Your task to perform on an android device: turn off picture-in-picture Image 0: 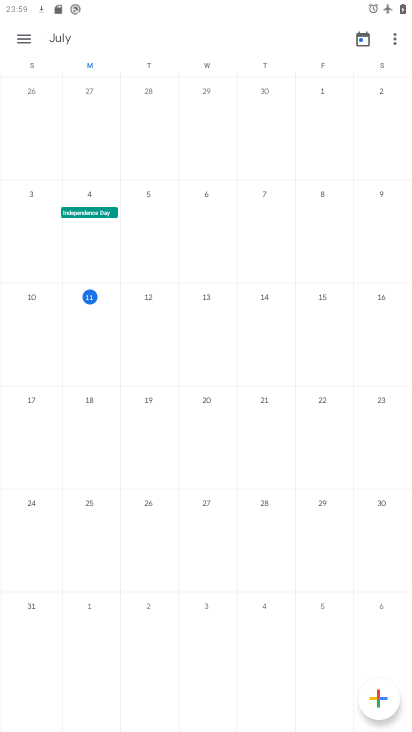
Step 0: press home button
Your task to perform on an android device: turn off picture-in-picture Image 1: 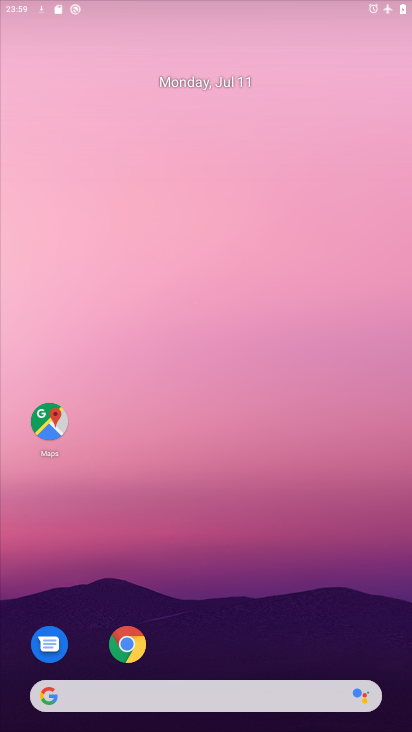
Step 1: drag from (188, 698) to (190, 236)
Your task to perform on an android device: turn off picture-in-picture Image 2: 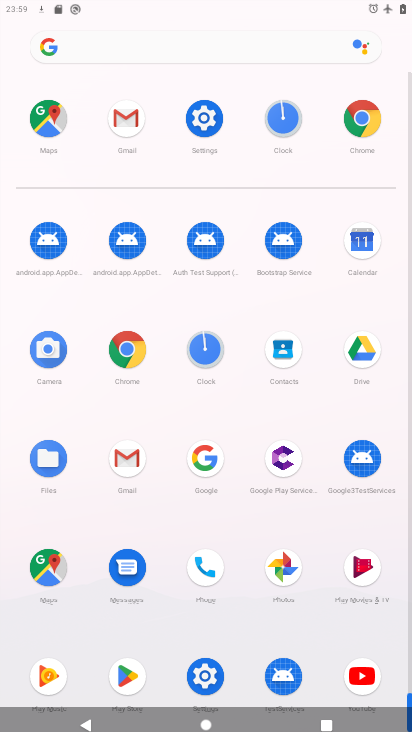
Step 2: click (202, 126)
Your task to perform on an android device: turn off picture-in-picture Image 3: 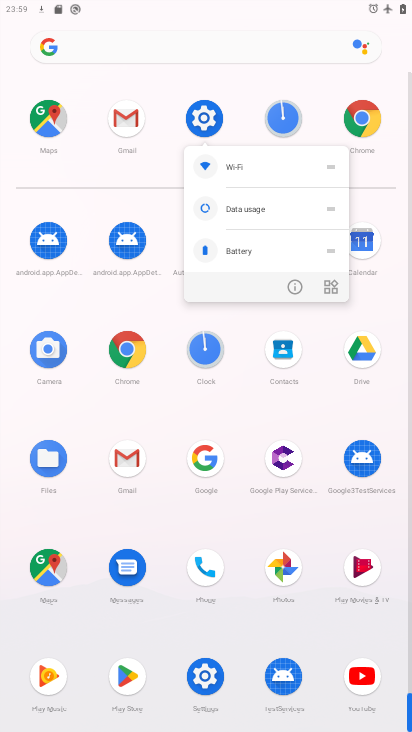
Step 3: click (197, 107)
Your task to perform on an android device: turn off picture-in-picture Image 4: 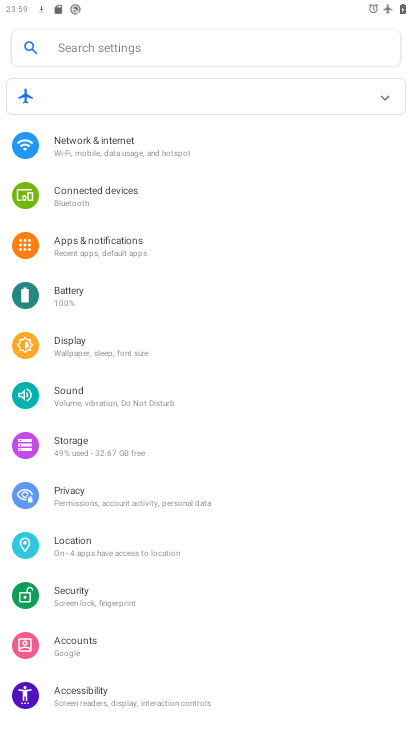
Step 4: click (109, 236)
Your task to perform on an android device: turn off picture-in-picture Image 5: 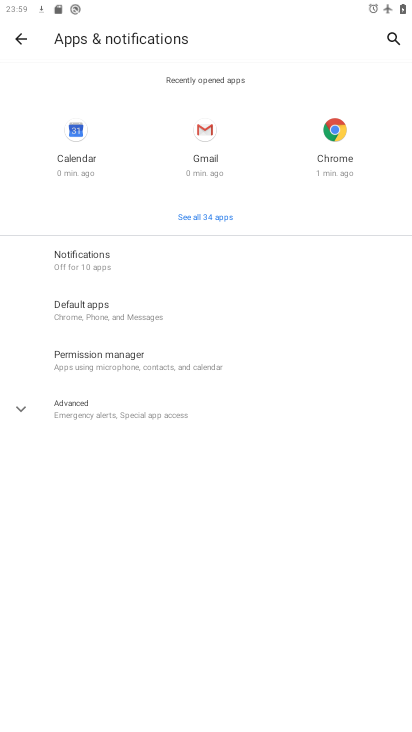
Step 5: click (141, 408)
Your task to perform on an android device: turn off picture-in-picture Image 6: 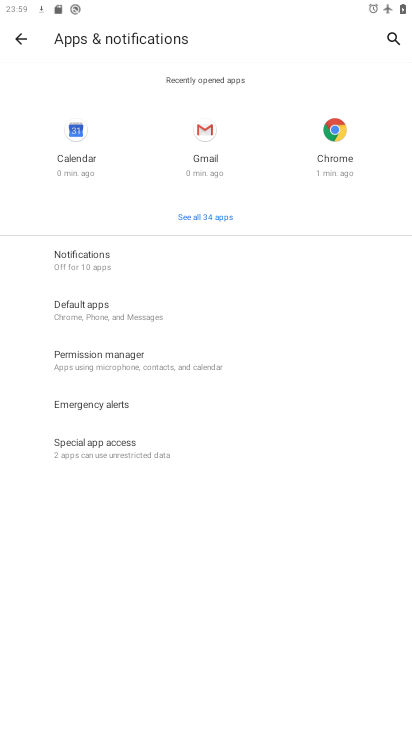
Step 6: click (164, 435)
Your task to perform on an android device: turn off picture-in-picture Image 7: 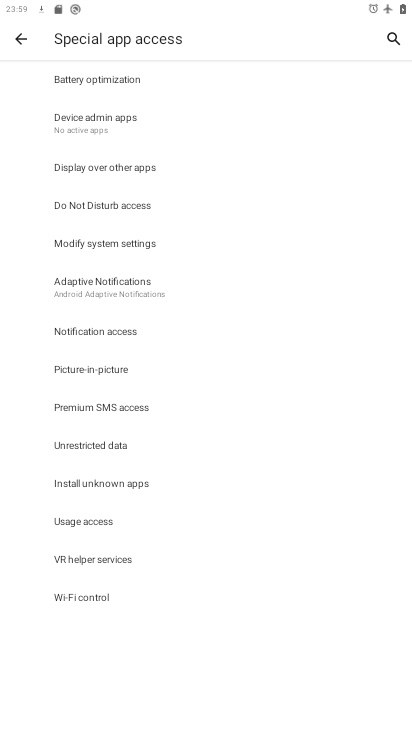
Step 7: click (119, 446)
Your task to perform on an android device: turn off picture-in-picture Image 8: 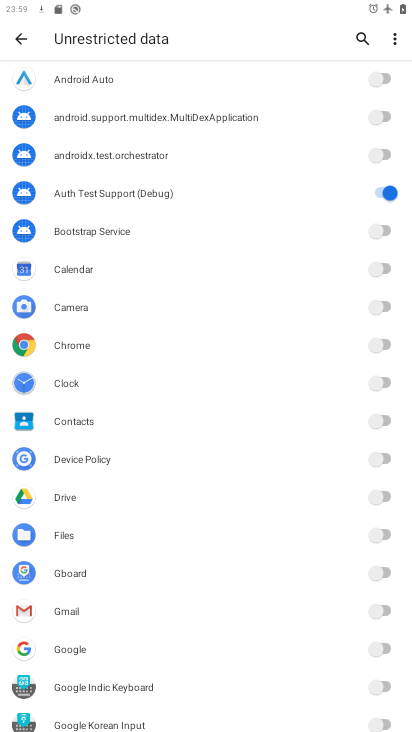
Step 8: click (27, 33)
Your task to perform on an android device: turn off picture-in-picture Image 9: 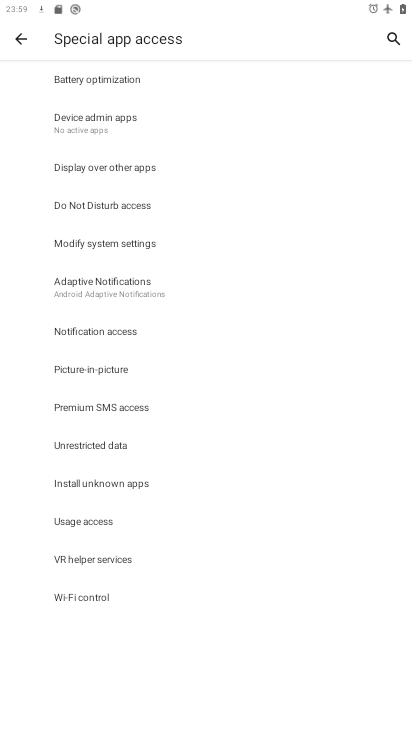
Step 9: click (112, 371)
Your task to perform on an android device: turn off picture-in-picture Image 10: 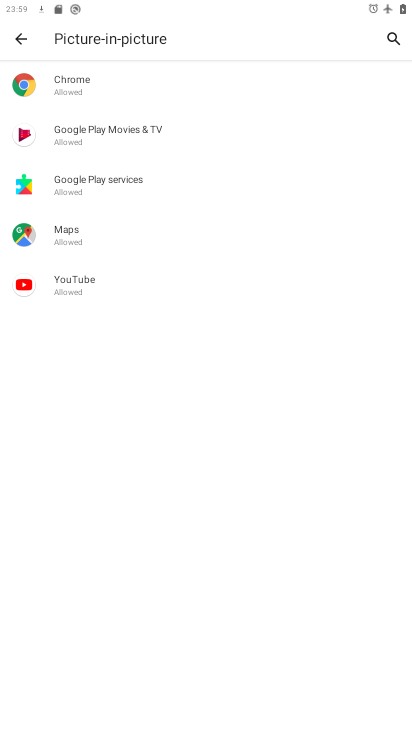
Step 10: click (137, 282)
Your task to perform on an android device: turn off picture-in-picture Image 11: 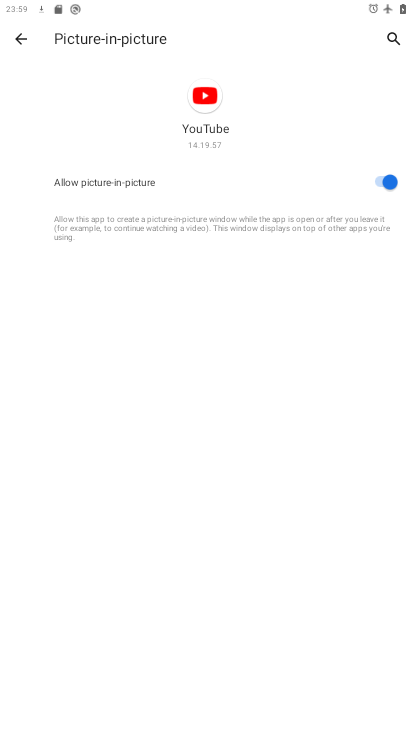
Step 11: click (393, 182)
Your task to perform on an android device: turn off picture-in-picture Image 12: 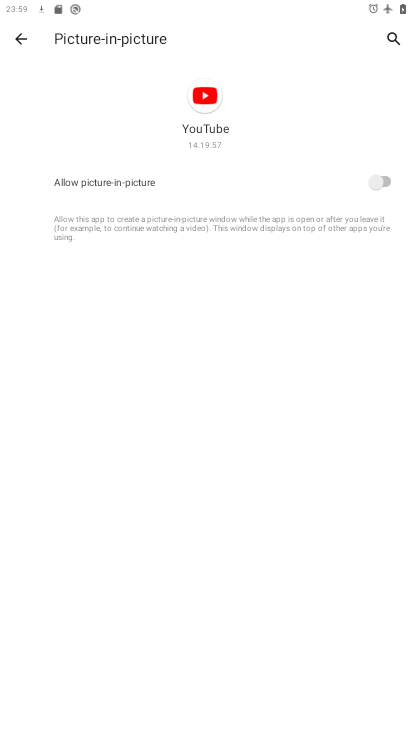
Step 12: task complete